Your task to perform on an android device: delete browsing data in the chrome app Image 0: 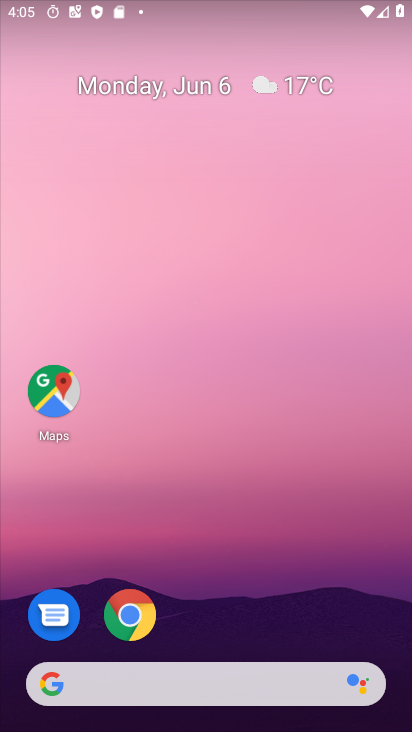
Step 0: drag from (314, 624) to (302, 49)
Your task to perform on an android device: delete browsing data in the chrome app Image 1: 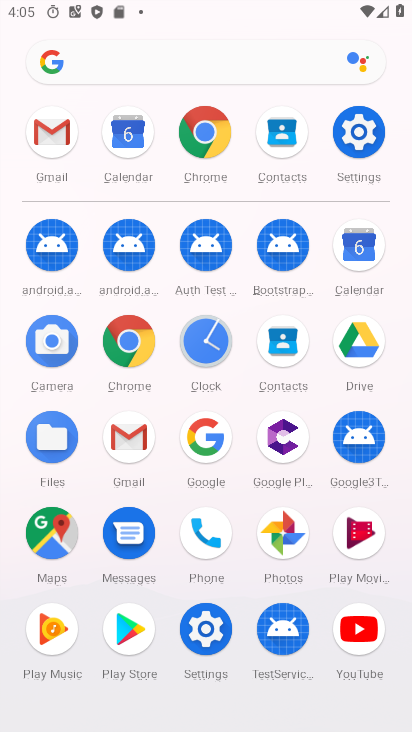
Step 1: click (138, 327)
Your task to perform on an android device: delete browsing data in the chrome app Image 2: 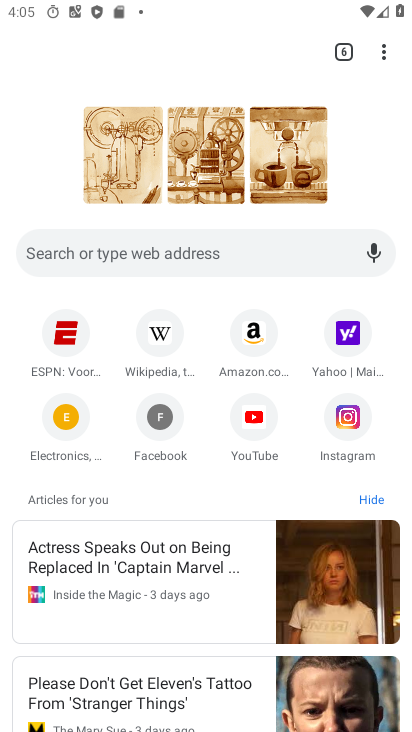
Step 2: click (385, 47)
Your task to perform on an android device: delete browsing data in the chrome app Image 3: 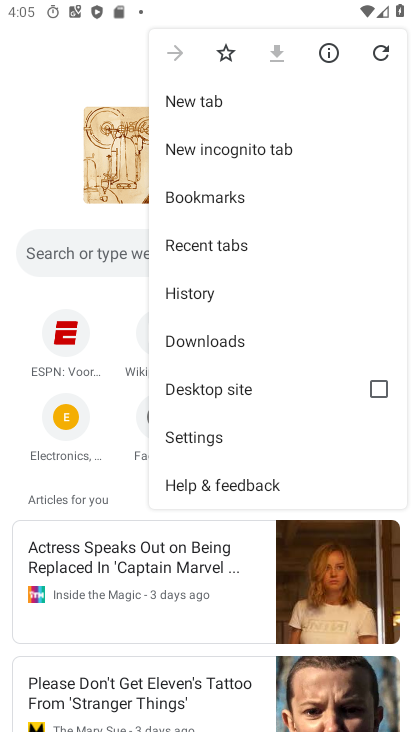
Step 3: click (223, 286)
Your task to perform on an android device: delete browsing data in the chrome app Image 4: 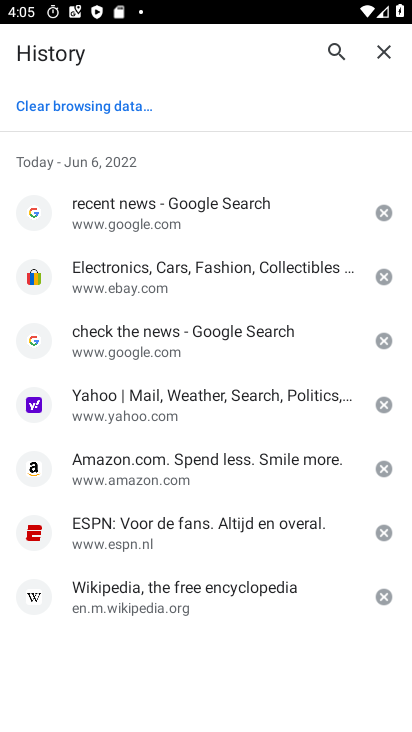
Step 4: click (115, 104)
Your task to perform on an android device: delete browsing data in the chrome app Image 5: 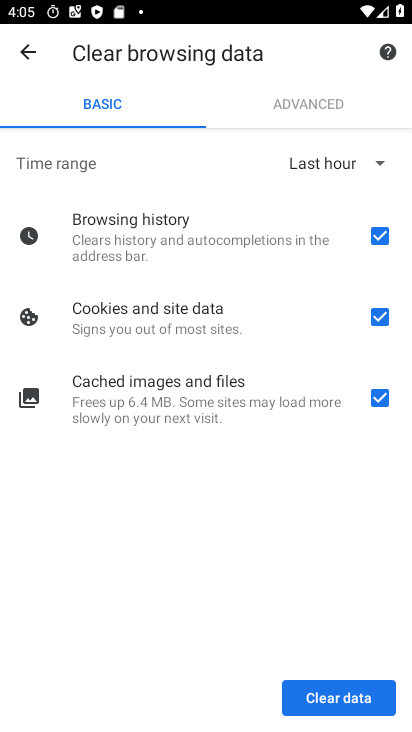
Step 5: click (329, 690)
Your task to perform on an android device: delete browsing data in the chrome app Image 6: 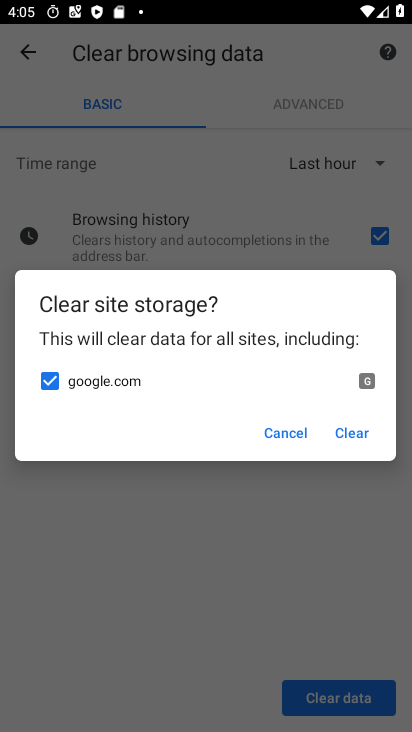
Step 6: click (352, 428)
Your task to perform on an android device: delete browsing data in the chrome app Image 7: 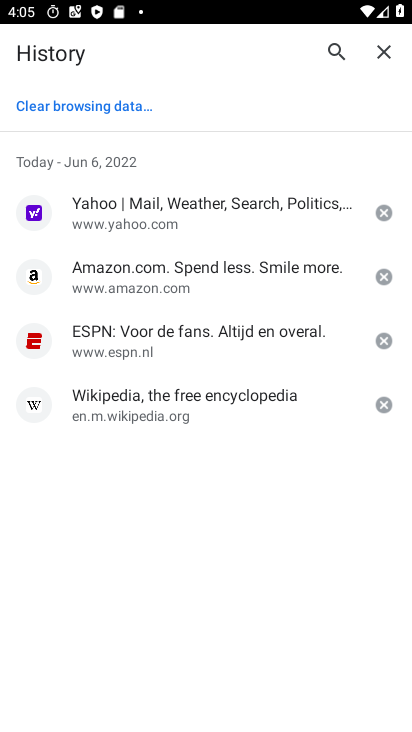
Step 7: click (378, 212)
Your task to perform on an android device: delete browsing data in the chrome app Image 8: 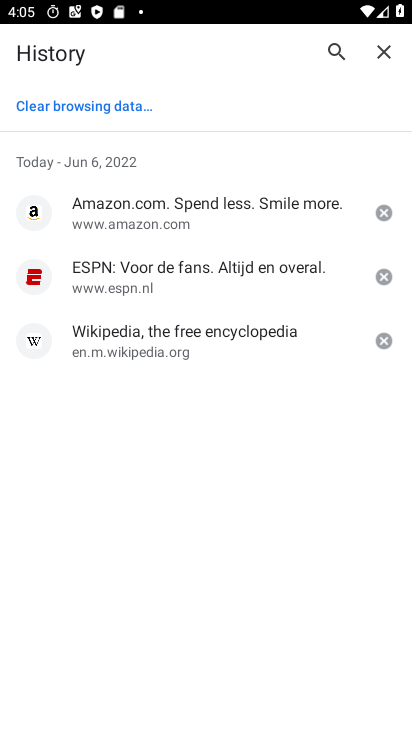
Step 8: click (381, 211)
Your task to perform on an android device: delete browsing data in the chrome app Image 9: 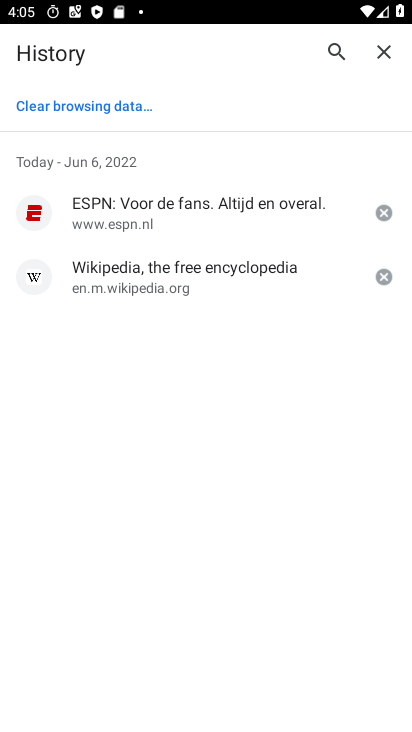
Step 9: click (382, 212)
Your task to perform on an android device: delete browsing data in the chrome app Image 10: 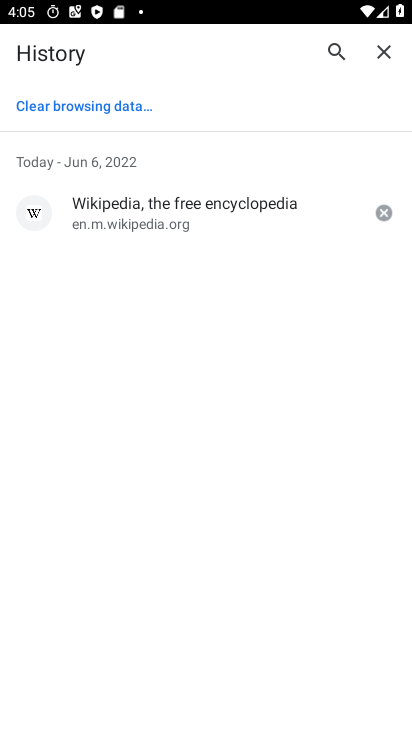
Step 10: click (383, 216)
Your task to perform on an android device: delete browsing data in the chrome app Image 11: 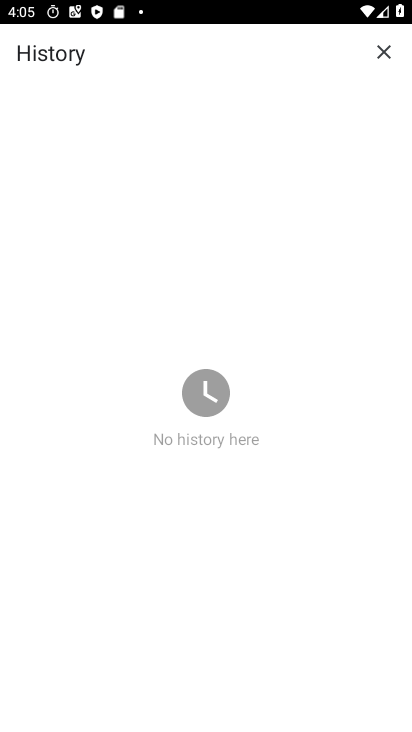
Step 11: task complete